Your task to perform on an android device: What's the weather going to be tomorrow? Image 0: 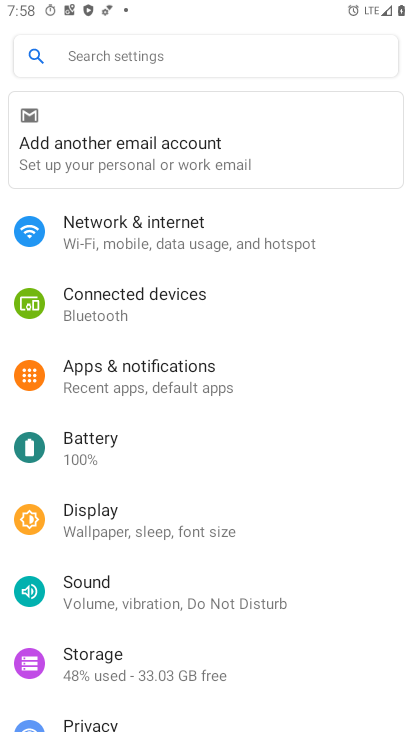
Step 0: press home button
Your task to perform on an android device: What's the weather going to be tomorrow? Image 1: 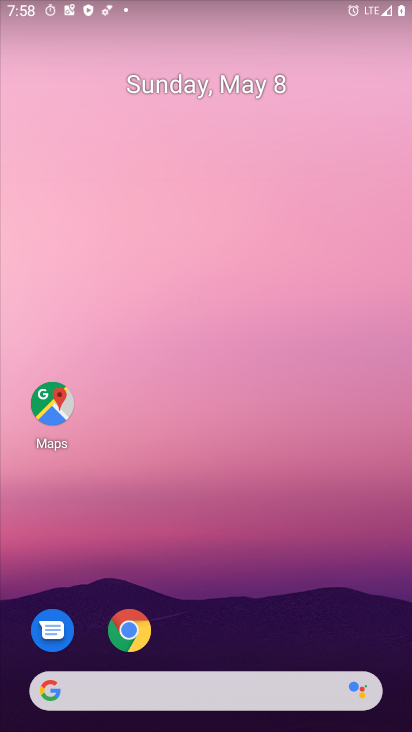
Step 1: drag from (200, 663) to (292, 31)
Your task to perform on an android device: What's the weather going to be tomorrow? Image 2: 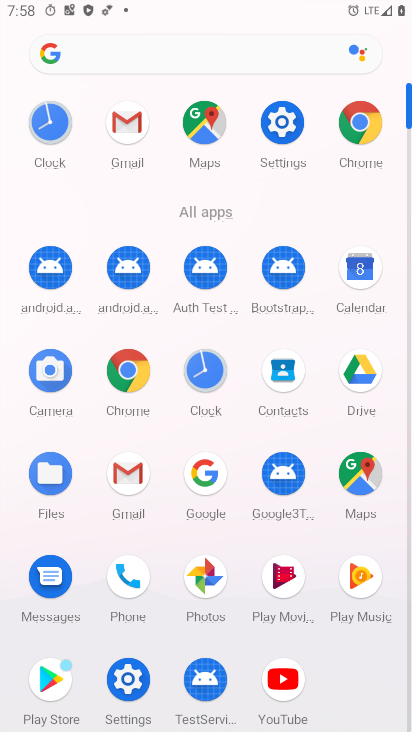
Step 2: click (208, 478)
Your task to perform on an android device: What's the weather going to be tomorrow? Image 3: 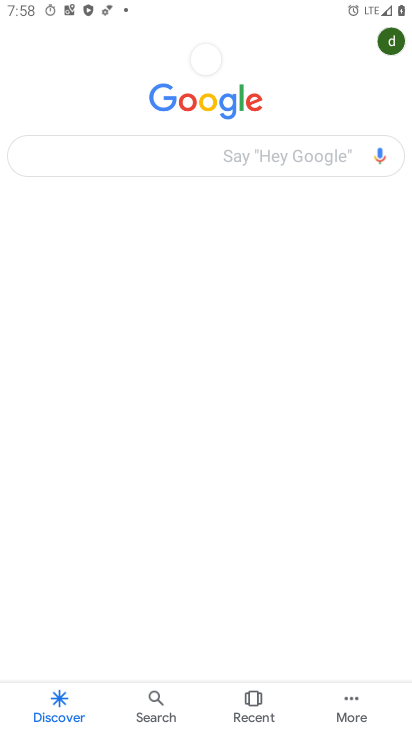
Step 3: click (130, 152)
Your task to perform on an android device: What's the weather going to be tomorrow? Image 4: 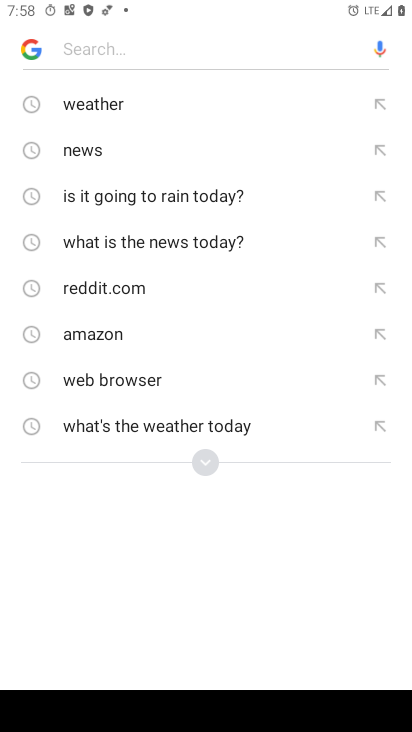
Step 4: click (54, 98)
Your task to perform on an android device: What's the weather going to be tomorrow? Image 5: 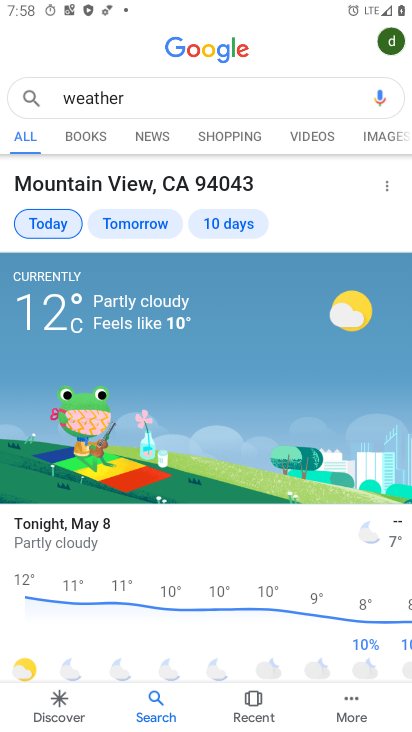
Step 5: task complete